Your task to perform on an android device: Search for good Italian restaurants on Maps Image 0: 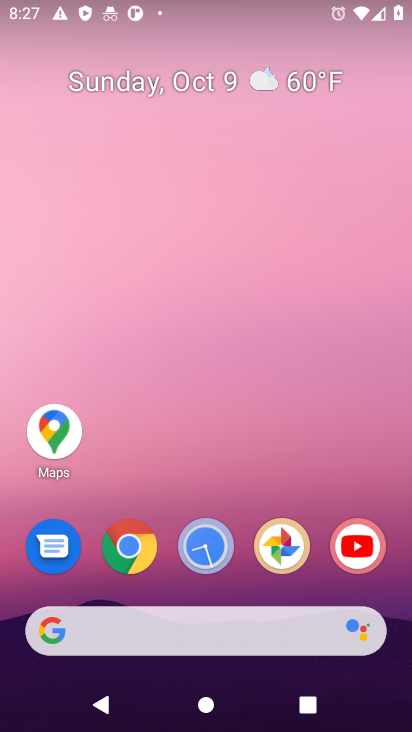
Step 0: click (125, 564)
Your task to perform on an android device: Search for good Italian restaurants on Maps Image 1: 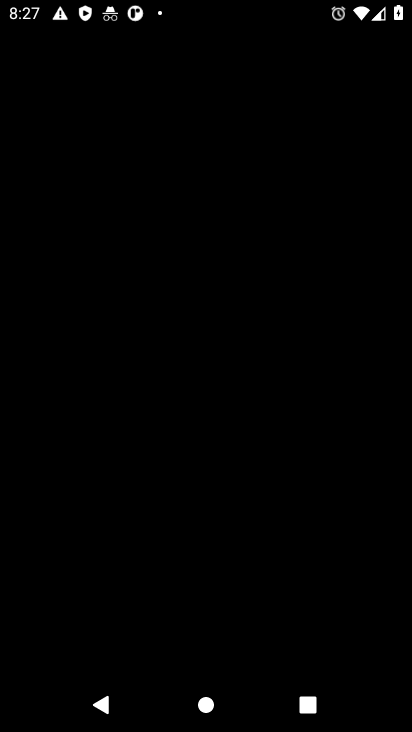
Step 1: click (133, 562)
Your task to perform on an android device: Search for good Italian restaurants on Maps Image 2: 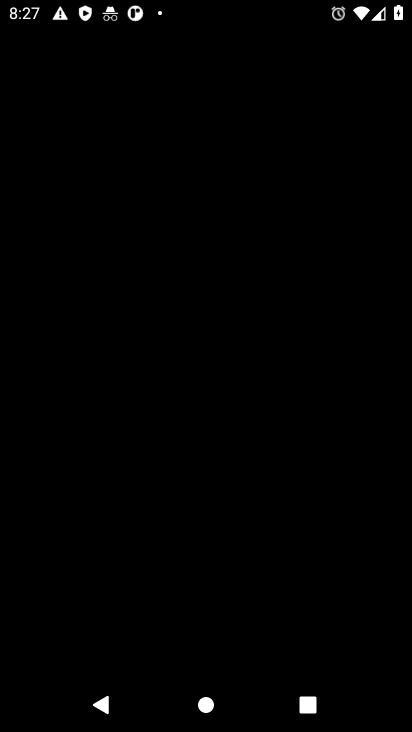
Step 2: press home button
Your task to perform on an android device: Search for good Italian restaurants on Maps Image 3: 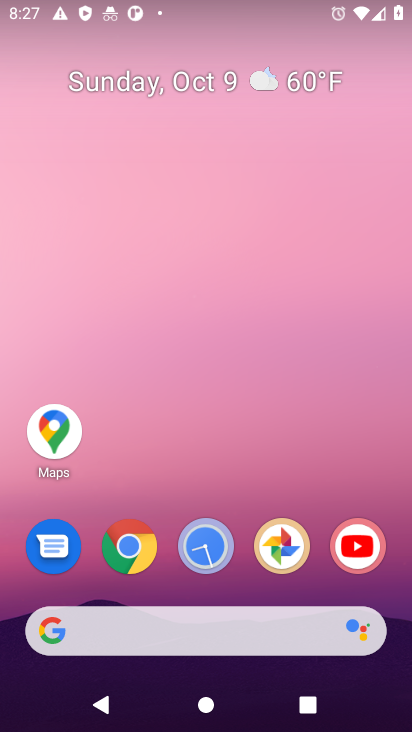
Step 3: click (123, 548)
Your task to perform on an android device: Search for good Italian restaurants on Maps Image 4: 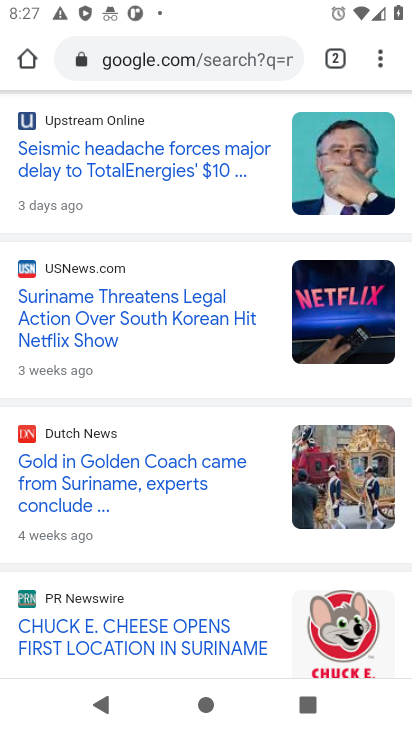
Step 4: click (247, 64)
Your task to perform on an android device: Search for good Italian restaurants on Maps Image 5: 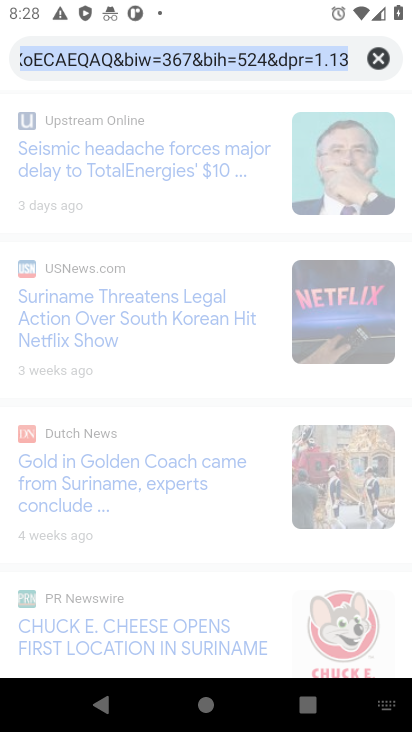
Step 5: type "good"
Your task to perform on an android device: Search for good Italian restaurants on Maps Image 6: 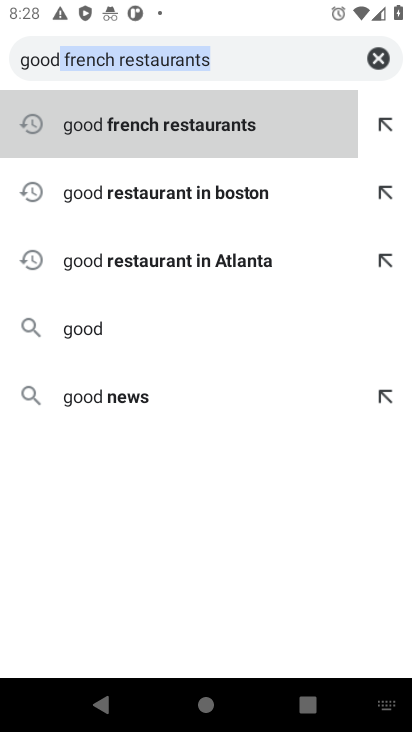
Step 6: press home button
Your task to perform on an android device: Search for good Italian restaurants on Maps Image 7: 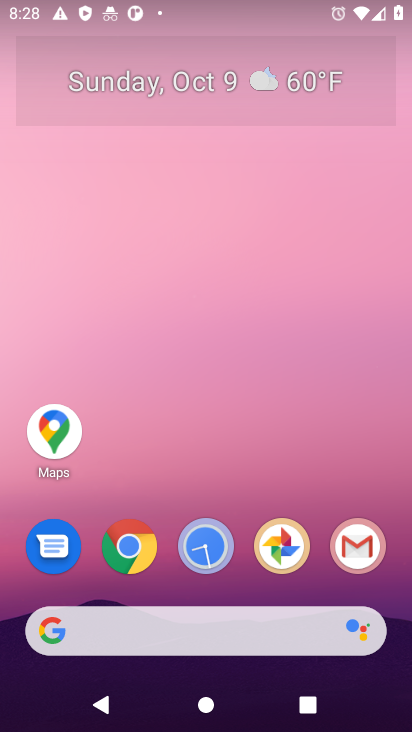
Step 7: click (41, 431)
Your task to perform on an android device: Search for good Italian restaurants on Maps Image 8: 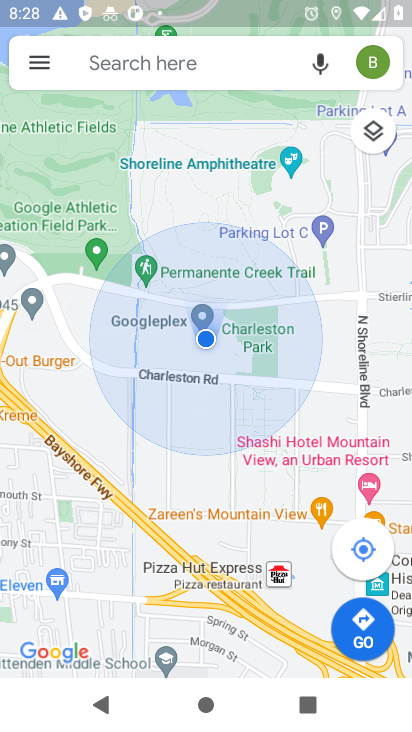
Step 8: click (203, 75)
Your task to perform on an android device: Search for good Italian restaurants on Maps Image 9: 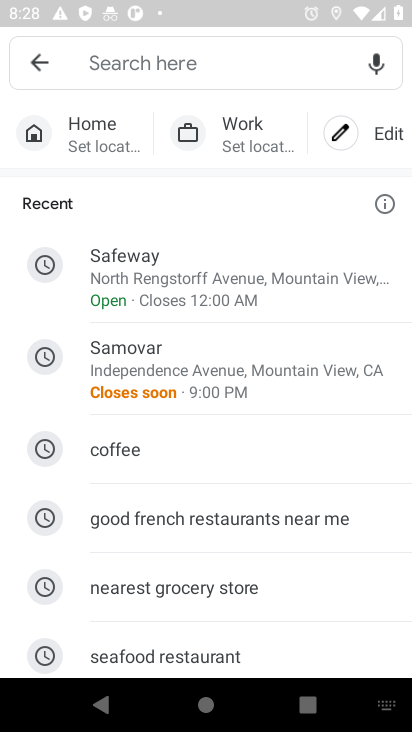
Step 9: type "good italian restaurants"
Your task to perform on an android device: Search for good Italian restaurants on Maps Image 10: 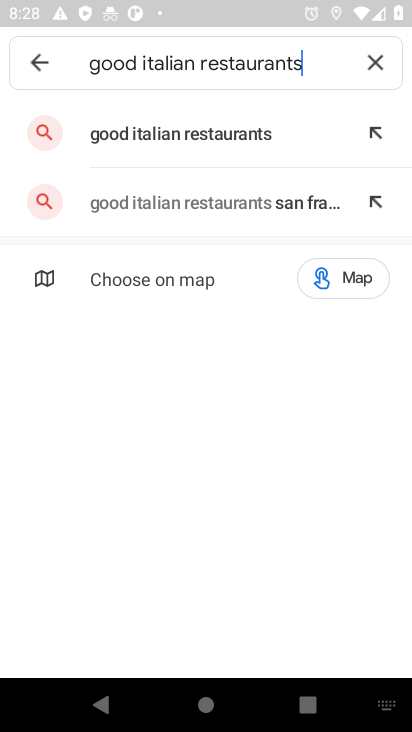
Step 10: type ""
Your task to perform on an android device: Search for good Italian restaurants on Maps Image 11: 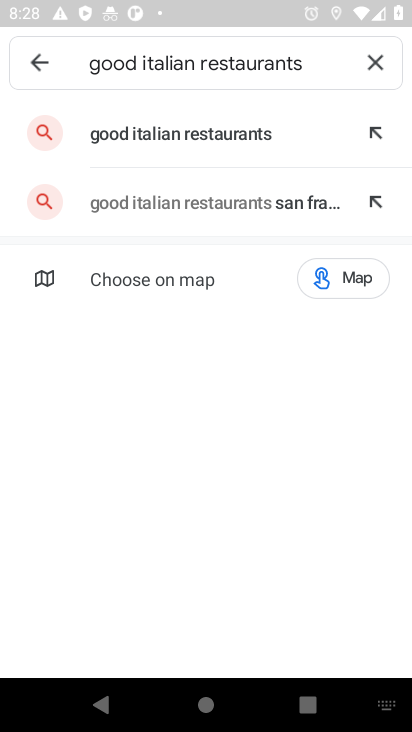
Step 11: press enter
Your task to perform on an android device: Search for good Italian restaurants on Maps Image 12: 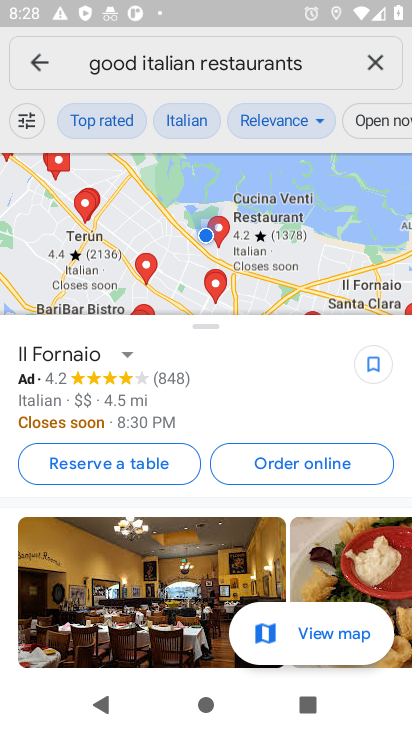
Step 12: task complete